Your task to perform on an android device: turn on bluetooth scan Image 0: 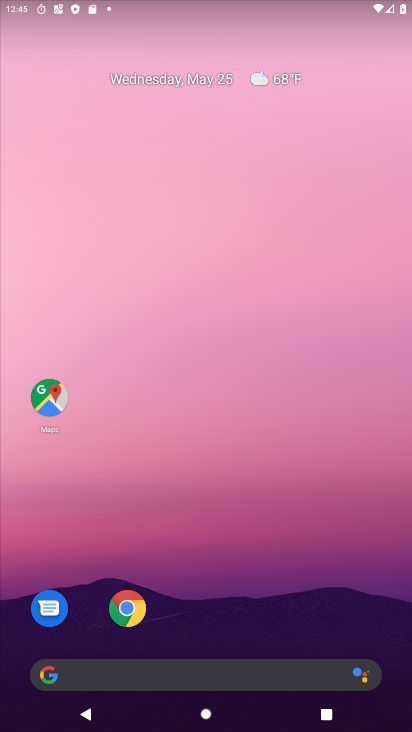
Step 0: drag from (98, 561) to (94, 482)
Your task to perform on an android device: turn on bluetooth scan Image 1: 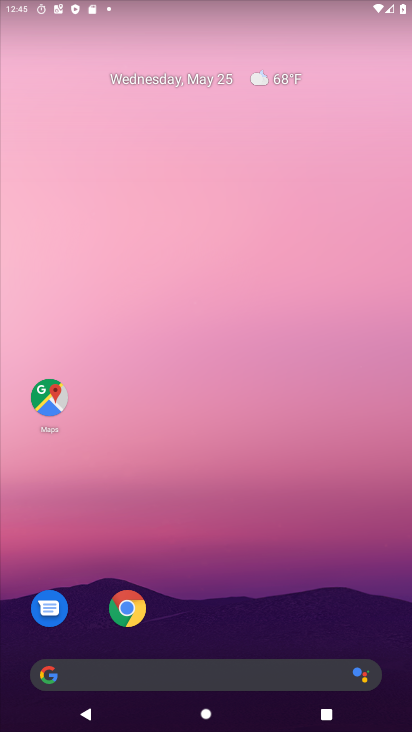
Step 1: click (81, 509)
Your task to perform on an android device: turn on bluetooth scan Image 2: 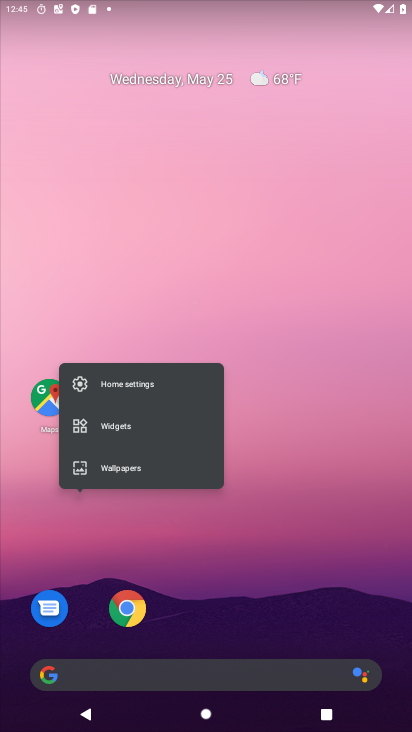
Step 2: drag from (107, 426) to (6, 194)
Your task to perform on an android device: turn on bluetooth scan Image 3: 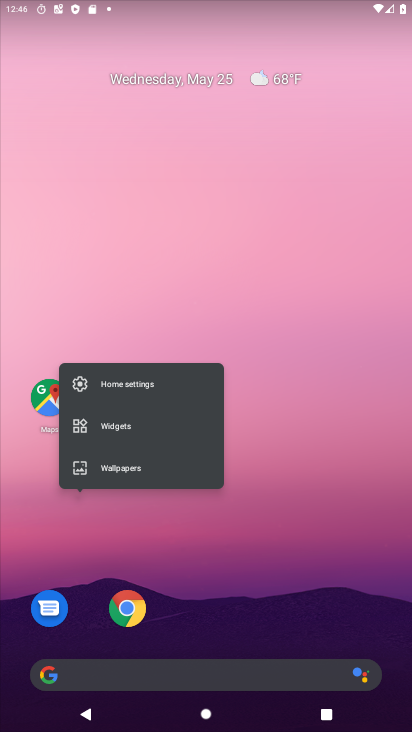
Step 3: drag from (267, 508) to (209, 15)
Your task to perform on an android device: turn on bluetooth scan Image 4: 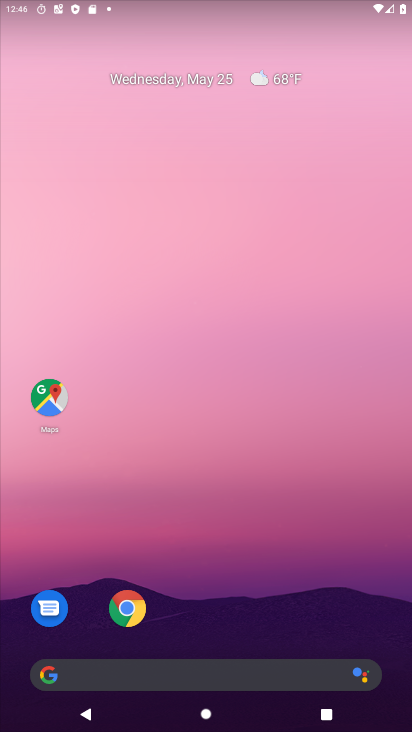
Step 4: drag from (271, 588) to (154, 75)
Your task to perform on an android device: turn on bluetooth scan Image 5: 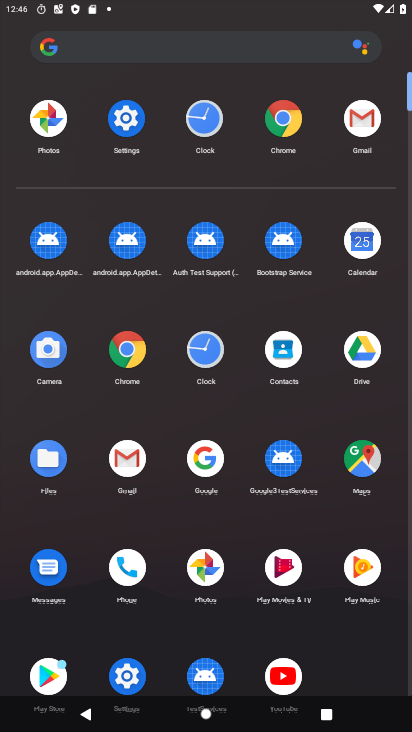
Step 5: click (145, 680)
Your task to perform on an android device: turn on bluetooth scan Image 6: 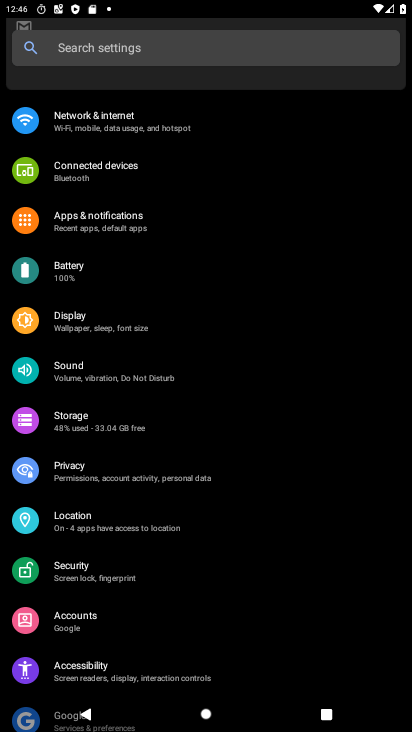
Step 6: drag from (117, 626) to (101, 376)
Your task to perform on an android device: turn on bluetooth scan Image 7: 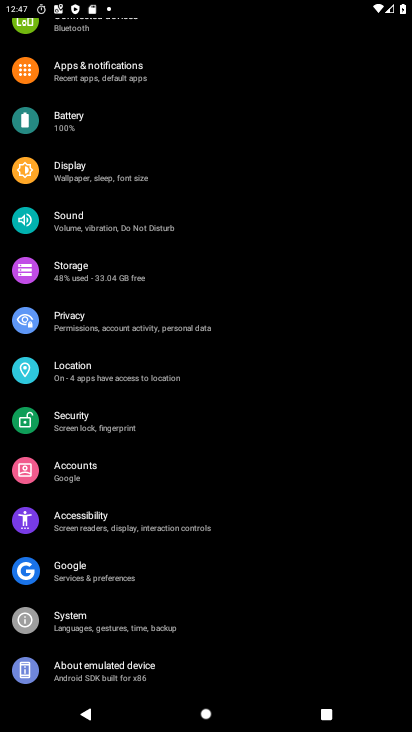
Step 7: drag from (78, 620) to (78, 551)
Your task to perform on an android device: turn on bluetooth scan Image 8: 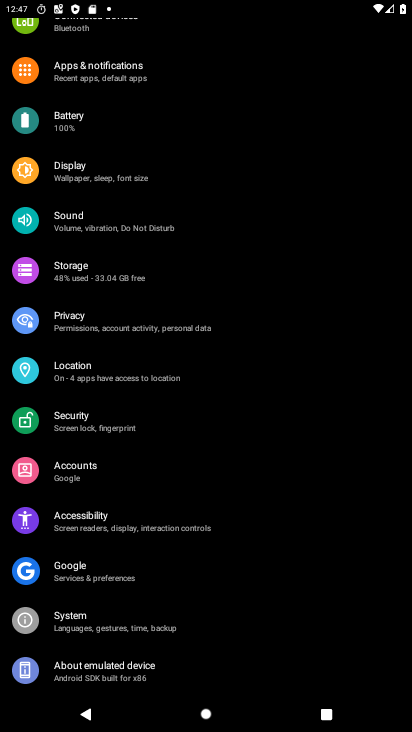
Step 8: click (72, 394)
Your task to perform on an android device: turn on bluetooth scan Image 9: 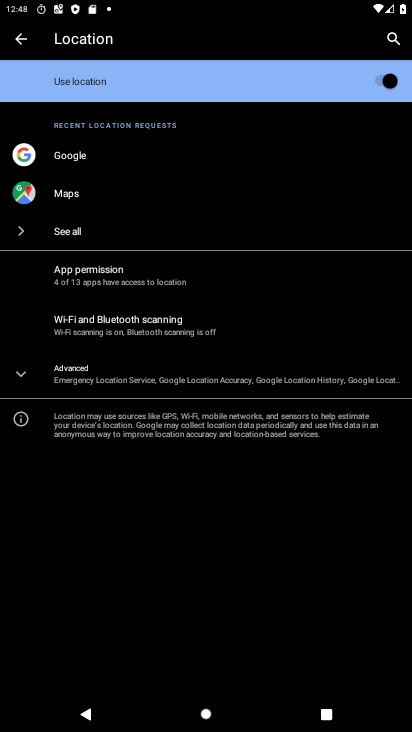
Step 9: click (76, 393)
Your task to perform on an android device: turn on bluetooth scan Image 10: 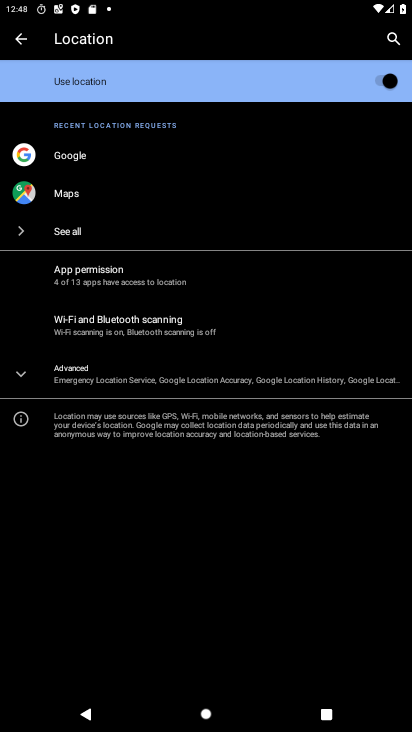
Step 10: click (183, 299)
Your task to perform on an android device: turn on bluetooth scan Image 11: 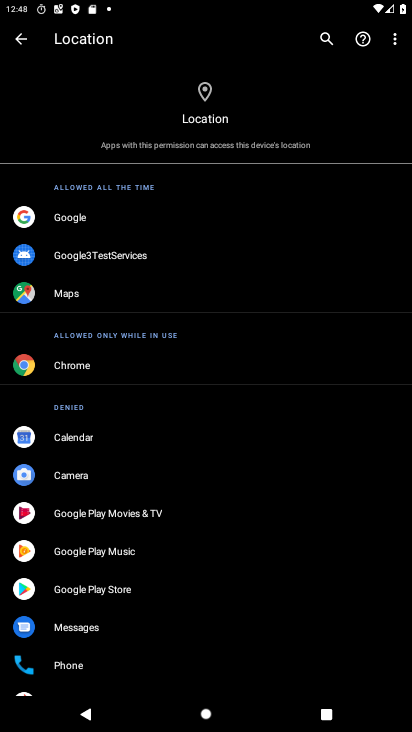
Step 11: click (4, 34)
Your task to perform on an android device: turn on bluetooth scan Image 12: 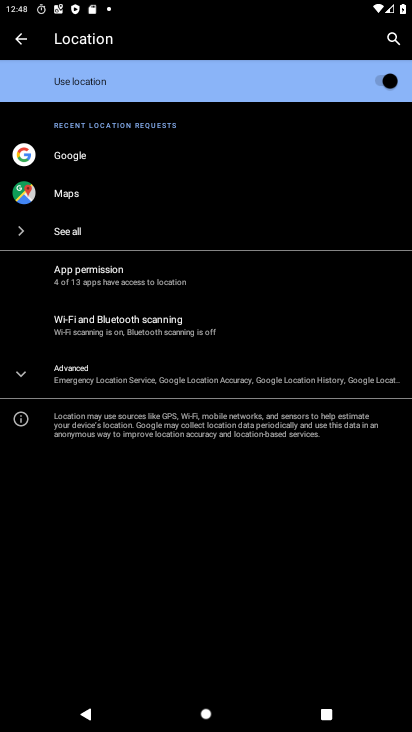
Step 12: click (108, 315)
Your task to perform on an android device: turn on bluetooth scan Image 13: 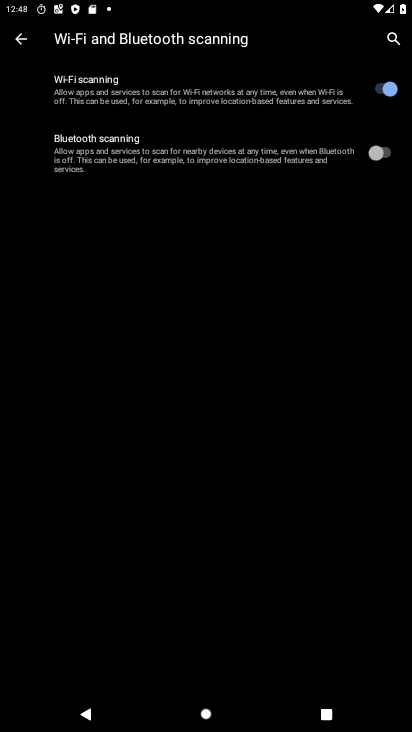
Step 13: click (392, 139)
Your task to perform on an android device: turn on bluetooth scan Image 14: 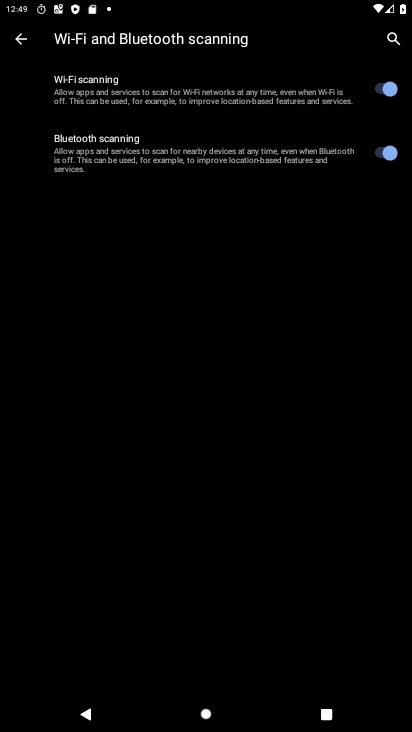
Step 14: task complete